Your task to perform on an android device: View the shopping cart on ebay.com. Search for "razer thresher" on ebay.com, select the first entry, and add it to the cart. Image 0: 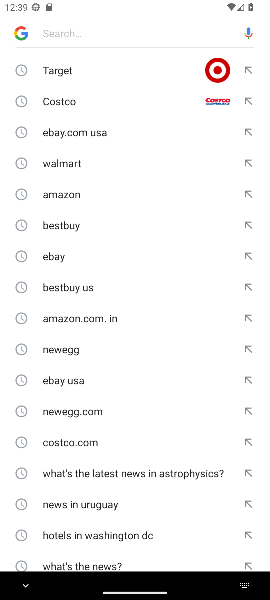
Step 0: press home button
Your task to perform on an android device: View the shopping cart on ebay.com. Search for "razer thresher" on ebay.com, select the first entry, and add it to the cart. Image 1: 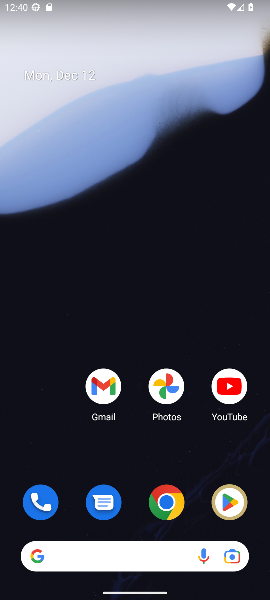
Step 1: click (175, 515)
Your task to perform on an android device: View the shopping cart on ebay.com. Search for "razer thresher" on ebay.com, select the first entry, and add it to the cart. Image 2: 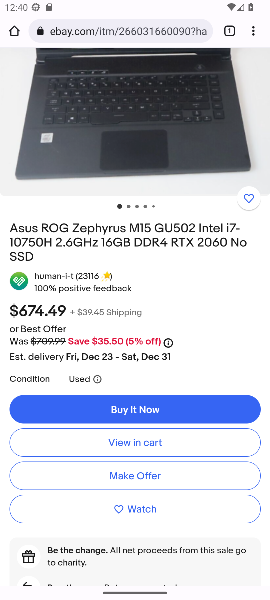
Step 2: click (135, 39)
Your task to perform on an android device: View the shopping cart on ebay.com. Search for "razer thresher" on ebay.com, select the first entry, and add it to the cart. Image 3: 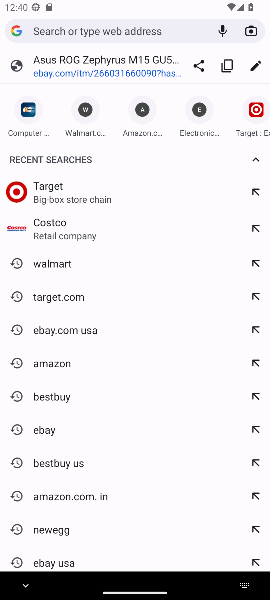
Step 3: click (62, 427)
Your task to perform on an android device: View the shopping cart on ebay.com. Search for "razer thresher" on ebay.com, select the first entry, and add it to the cart. Image 4: 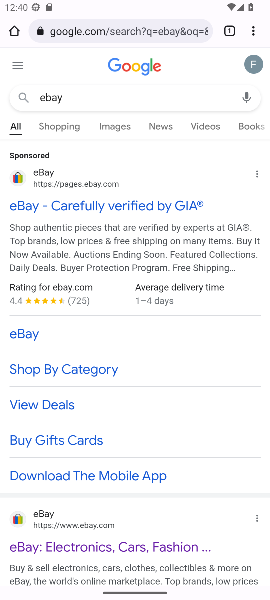
Step 4: click (125, 203)
Your task to perform on an android device: View the shopping cart on ebay.com. Search for "razer thresher" on ebay.com, select the first entry, and add it to the cart. Image 5: 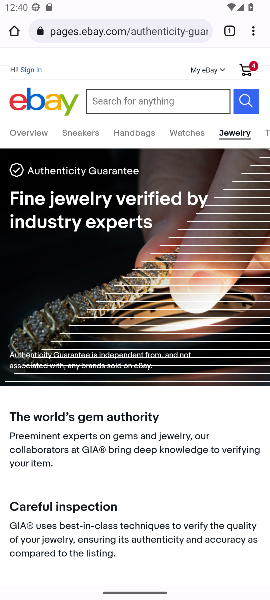
Step 5: click (126, 99)
Your task to perform on an android device: View the shopping cart on ebay.com. Search for "razer thresher" on ebay.com, select the first entry, and add it to the cart. Image 6: 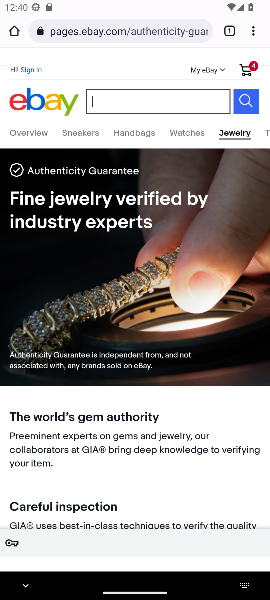
Step 6: type "razer thresher'"
Your task to perform on an android device: View the shopping cart on ebay.com. Search for "razer thresher" on ebay.com, select the first entry, and add it to the cart. Image 7: 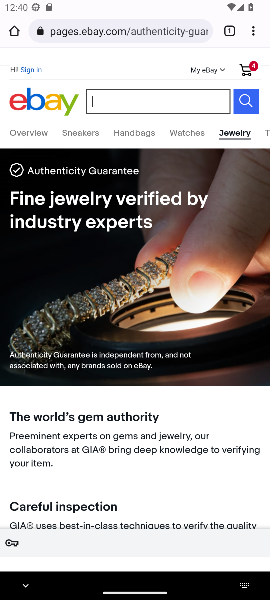
Step 7: click (127, 106)
Your task to perform on an android device: View the shopping cart on ebay.com. Search for "razer thresher" on ebay.com, select the first entry, and add it to the cart. Image 8: 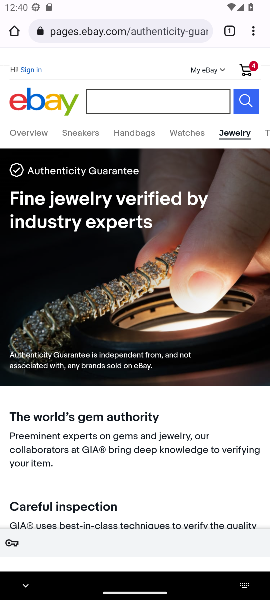
Step 8: type "razer thresher"
Your task to perform on an android device: View the shopping cart on ebay.com. Search for "razer thresher" on ebay.com, select the first entry, and add it to the cart. Image 9: 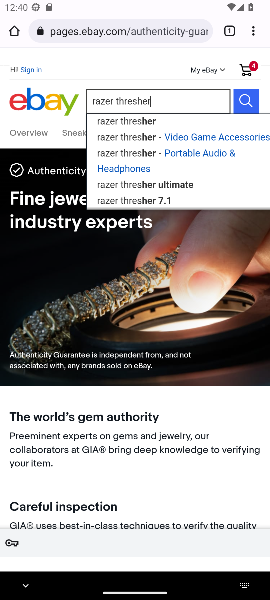
Step 9: click (250, 105)
Your task to perform on an android device: View the shopping cart on ebay.com. Search for "razer thresher" on ebay.com, select the first entry, and add it to the cart. Image 10: 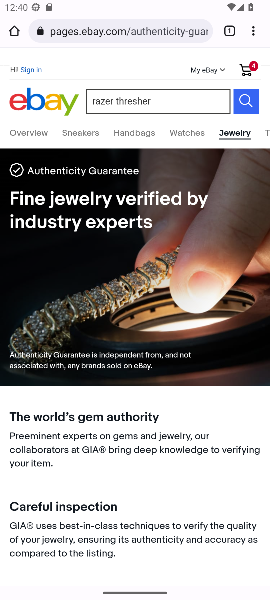
Step 10: click (155, 105)
Your task to perform on an android device: View the shopping cart on ebay.com. Search for "razer thresher" on ebay.com, select the first entry, and add it to the cart. Image 11: 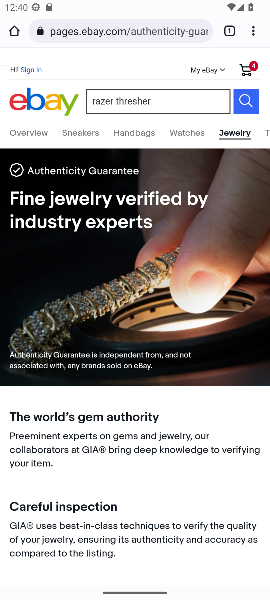
Step 11: click (155, 105)
Your task to perform on an android device: View the shopping cart on ebay.com. Search for "razer thresher" on ebay.com, select the first entry, and add it to the cart. Image 12: 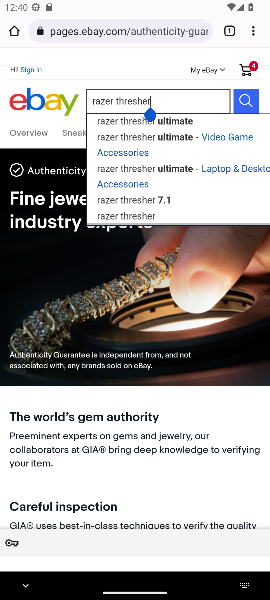
Step 12: click (45, 142)
Your task to perform on an android device: View the shopping cart on ebay.com. Search for "razer thresher" on ebay.com, select the first entry, and add it to the cart. Image 13: 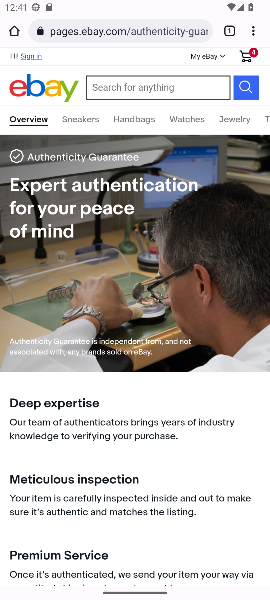
Step 13: click (144, 91)
Your task to perform on an android device: View the shopping cart on ebay.com. Search for "razer thresher" on ebay.com, select the first entry, and add it to the cart. Image 14: 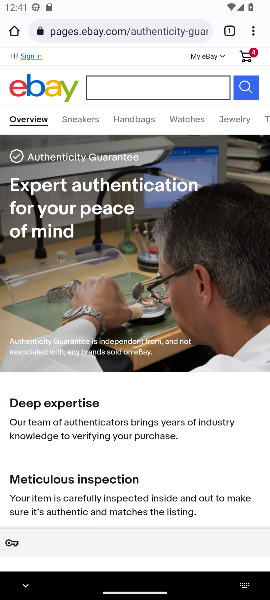
Step 14: type "razer thersher"
Your task to perform on an android device: View the shopping cart on ebay.com. Search for "razer thresher" on ebay.com, select the first entry, and add it to the cart. Image 15: 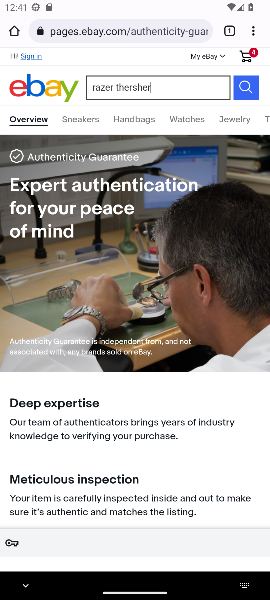
Step 15: click (247, 85)
Your task to perform on an android device: View the shopping cart on ebay.com. Search for "razer thresher" on ebay.com, select the first entry, and add it to the cart. Image 16: 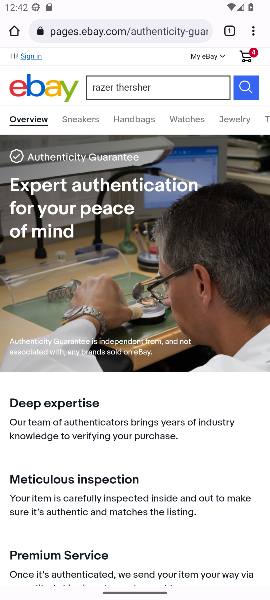
Step 16: click (242, 90)
Your task to perform on an android device: View the shopping cart on ebay.com. Search for "razer thresher" on ebay.com, select the first entry, and add it to the cart. Image 17: 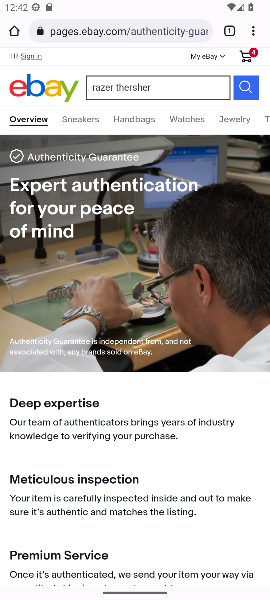
Step 17: task complete